Your task to perform on an android device: turn smart compose on in the gmail app Image 0: 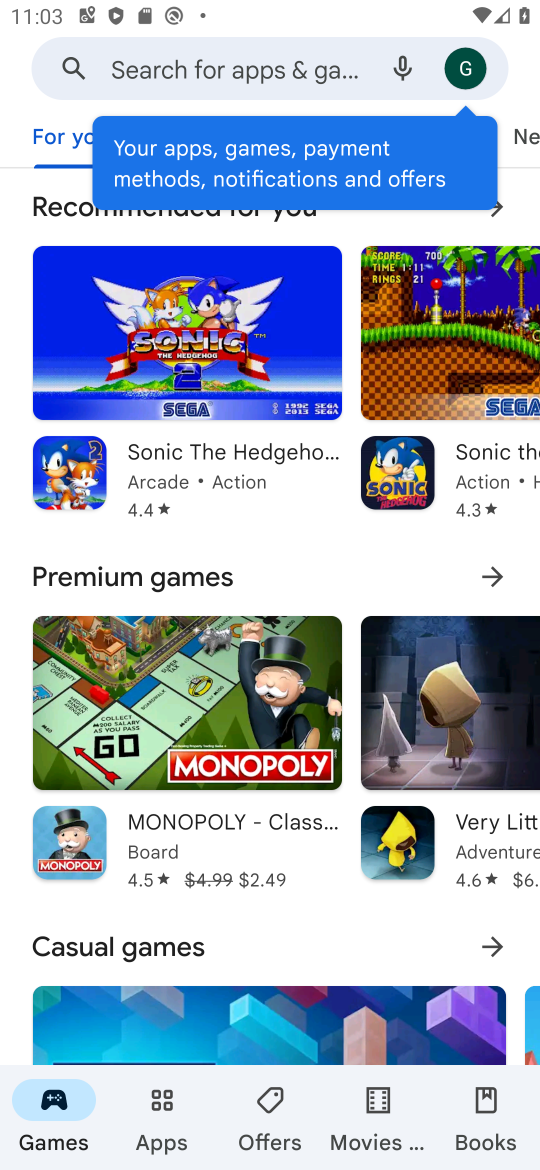
Step 0: press home button
Your task to perform on an android device: turn smart compose on in the gmail app Image 1: 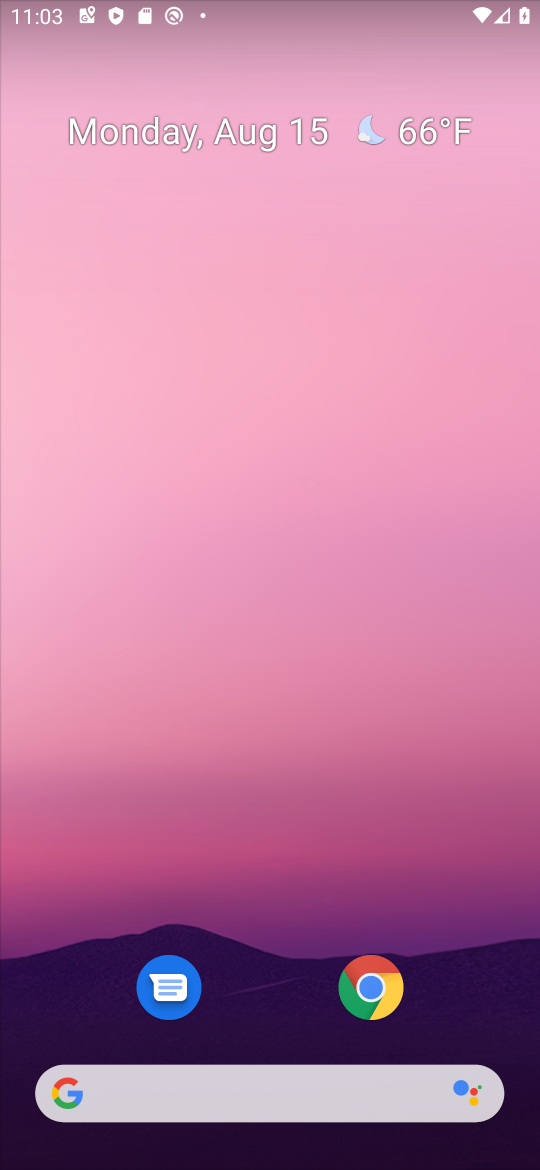
Step 1: drag from (198, 944) to (82, 183)
Your task to perform on an android device: turn smart compose on in the gmail app Image 2: 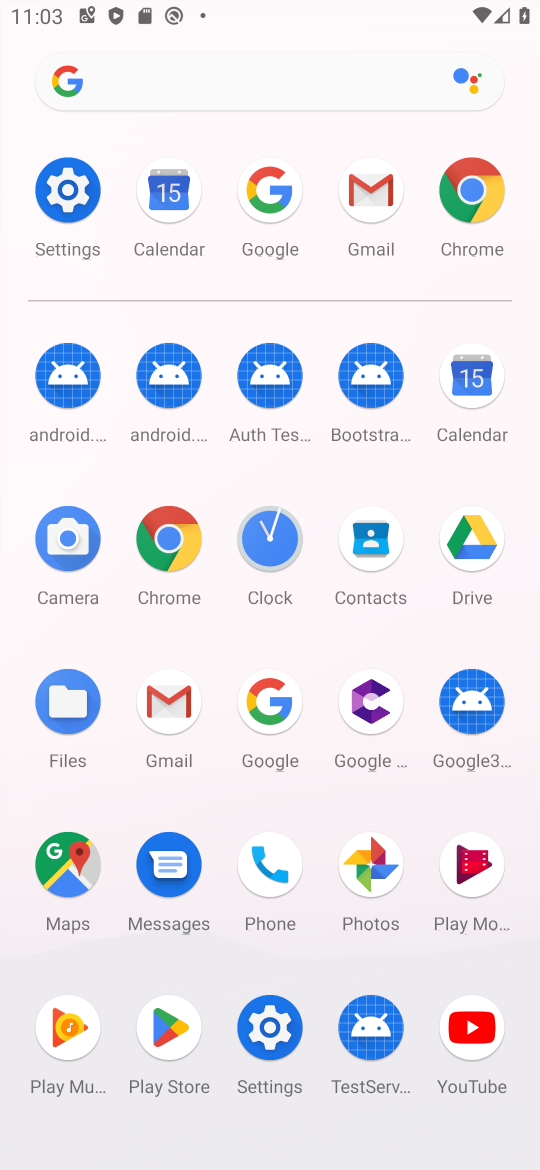
Step 2: click (168, 702)
Your task to perform on an android device: turn smart compose on in the gmail app Image 3: 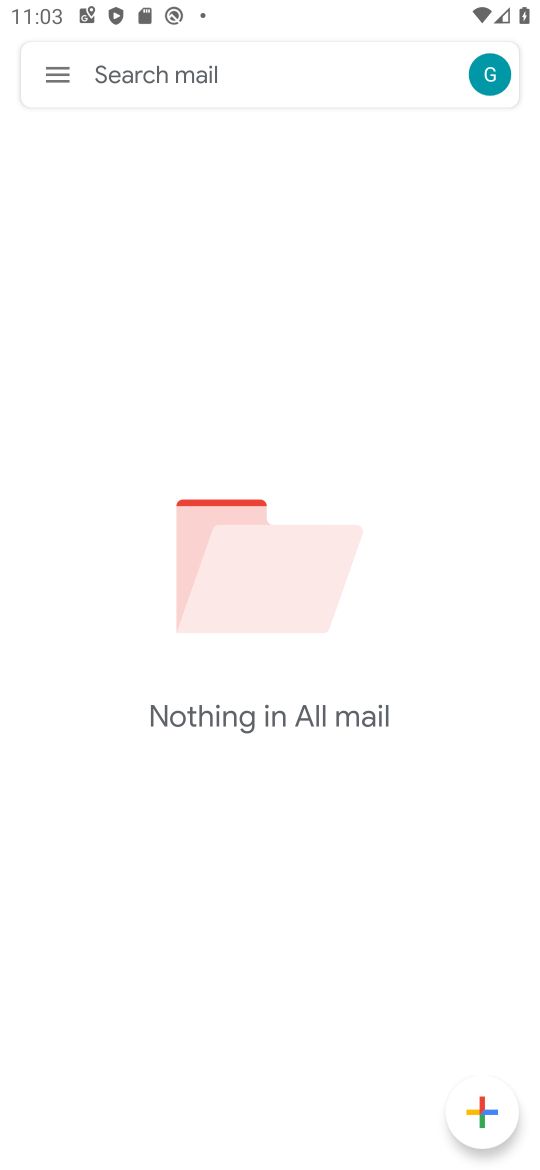
Step 3: click (47, 84)
Your task to perform on an android device: turn smart compose on in the gmail app Image 4: 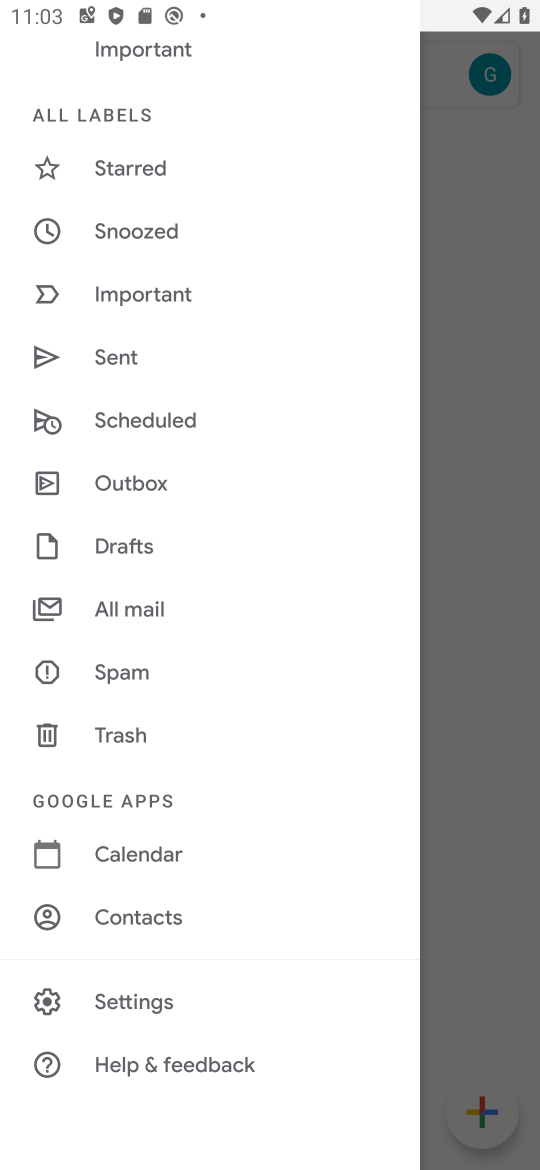
Step 4: click (136, 990)
Your task to perform on an android device: turn smart compose on in the gmail app Image 5: 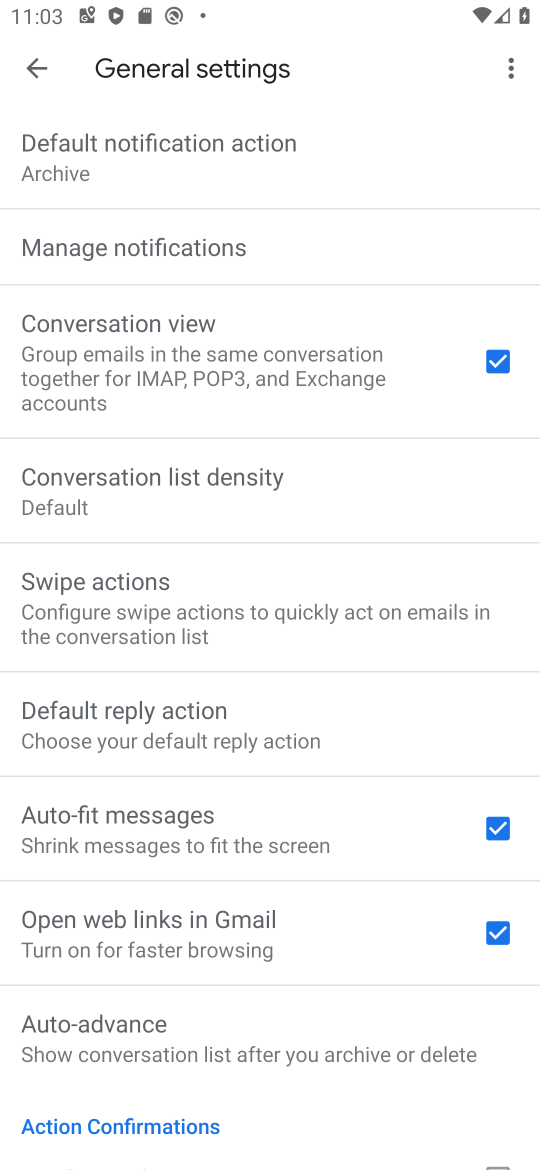
Step 5: click (21, 68)
Your task to perform on an android device: turn smart compose on in the gmail app Image 6: 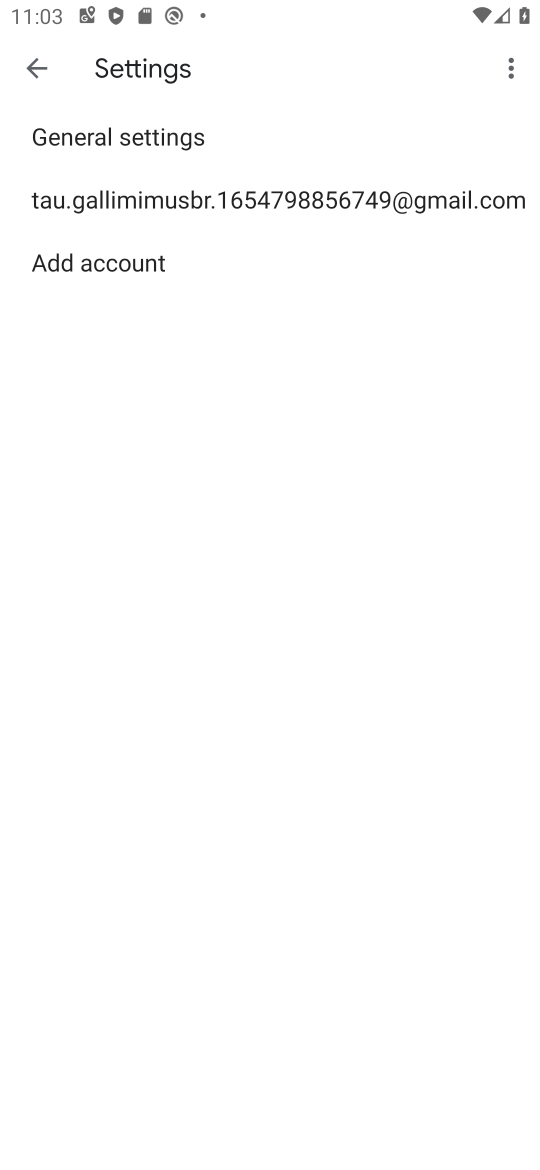
Step 6: click (123, 203)
Your task to perform on an android device: turn smart compose on in the gmail app Image 7: 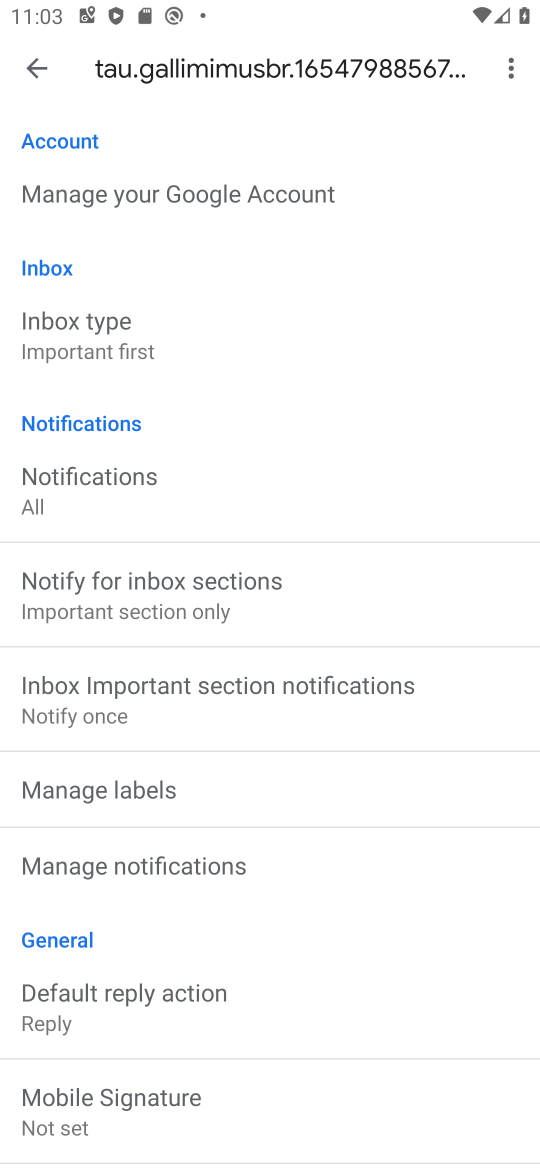
Step 7: task complete